Your task to perform on an android device: toggle sleep mode Image 0: 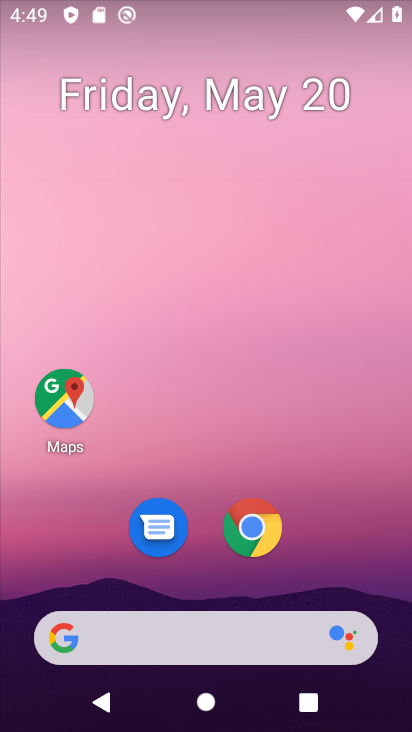
Step 0: drag from (265, 555) to (283, 56)
Your task to perform on an android device: toggle sleep mode Image 1: 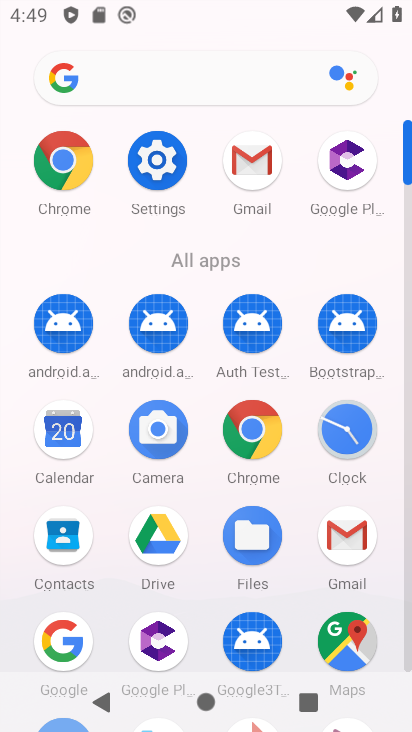
Step 1: click (169, 161)
Your task to perform on an android device: toggle sleep mode Image 2: 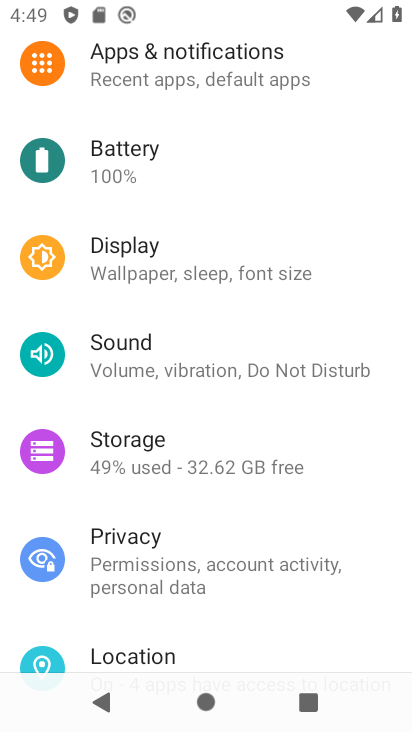
Step 2: click (193, 274)
Your task to perform on an android device: toggle sleep mode Image 3: 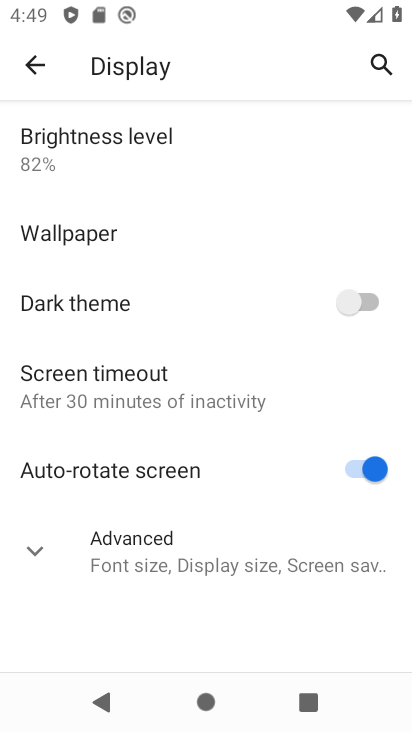
Step 3: task complete